Your task to perform on an android device: Open calendar and show me the third week of next month Image 0: 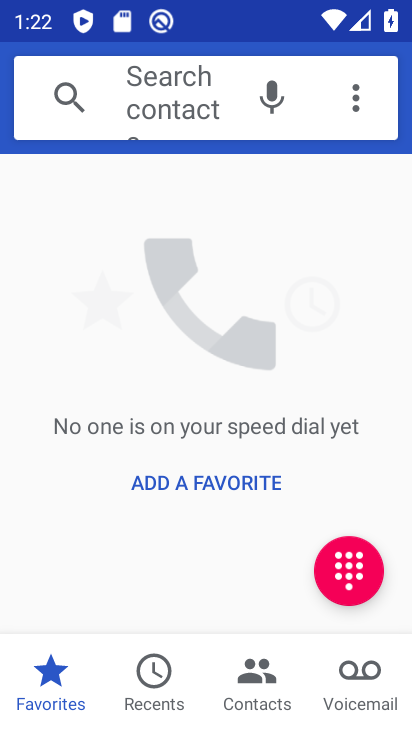
Step 0: press home button
Your task to perform on an android device: Open calendar and show me the third week of next month Image 1: 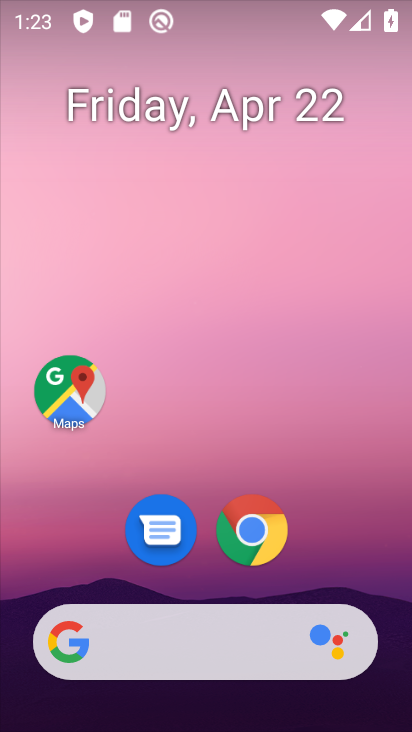
Step 1: drag from (244, 614) to (288, 101)
Your task to perform on an android device: Open calendar and show me the third week of next month Image 2: 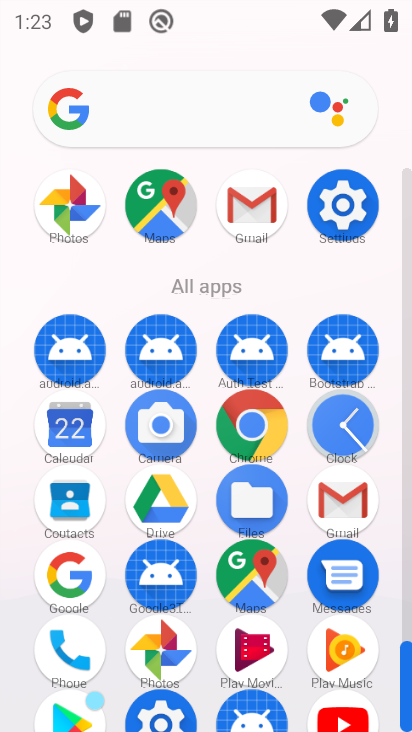
Step 2: click (68, 444)
Your task to perform on an android device: Open calendar and show me the third week of next month Image 3: 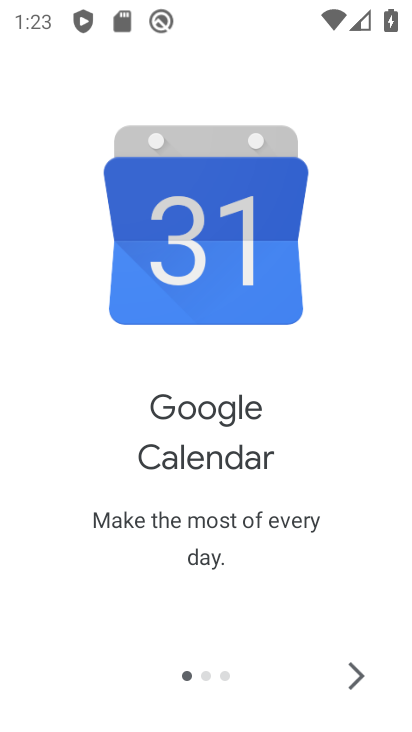
Step 3: click (352, 680)
Your task to perform on an android device: Open calendar and show me the third week of next month Image 4: 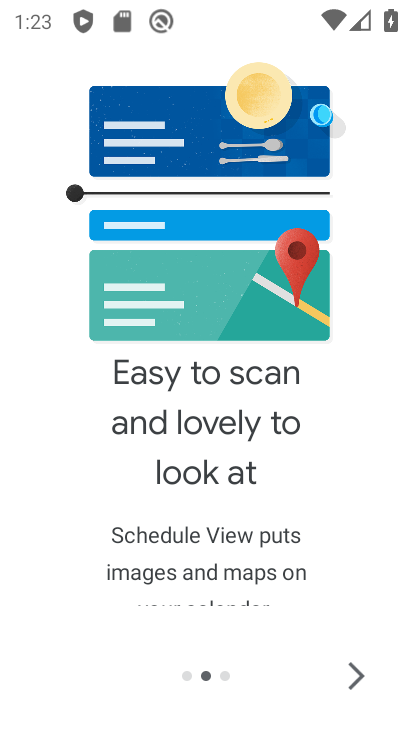
Step 4: click (352, 680)
Your task to perform on an android device: Open calendar and show me the third week of next month Image 5: 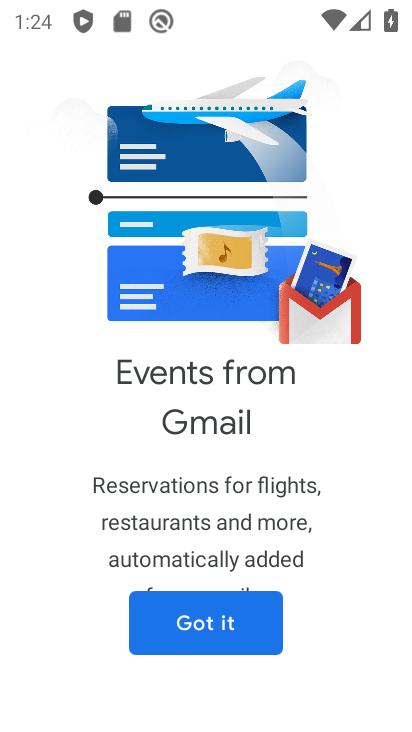
Step 5: click (239, 630)
Your task to perform on an android device: Open calendar and show me the third week of next month Image 6: 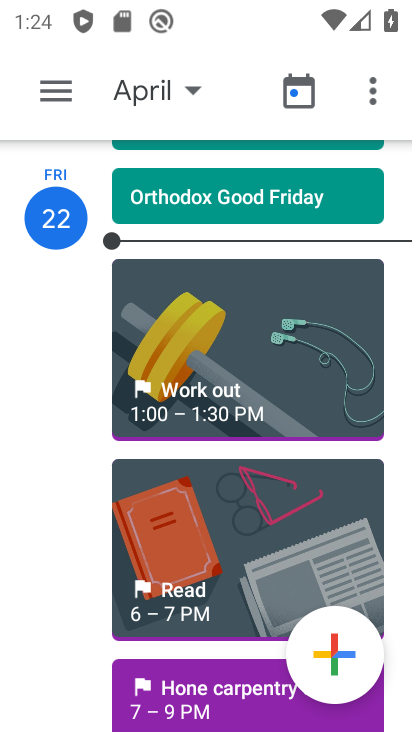
Step 6: click (65, 106)
Your task to perform on an android device: Open calendar and show me the third week of next month Image 7: 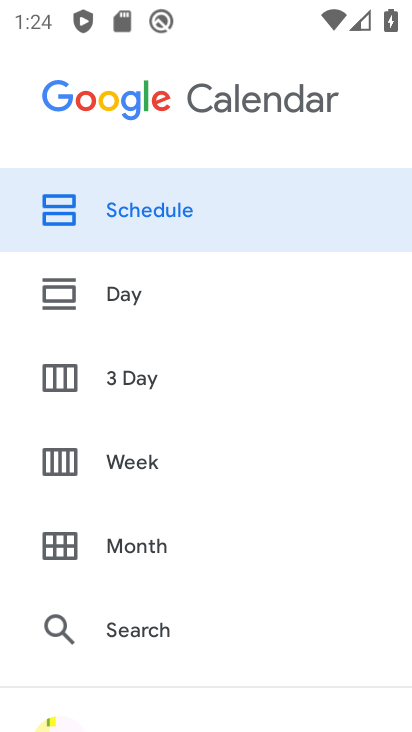
Step 7: click (149, 549)
Your task to perform on an android device: Open calendar and show me the third week of next month Image 8: 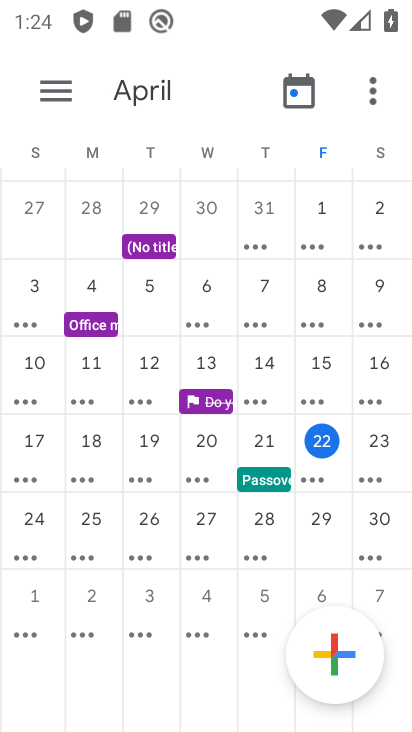
Step 8: task complete